Your task to perform on an android device: open wifi settings Image 0: 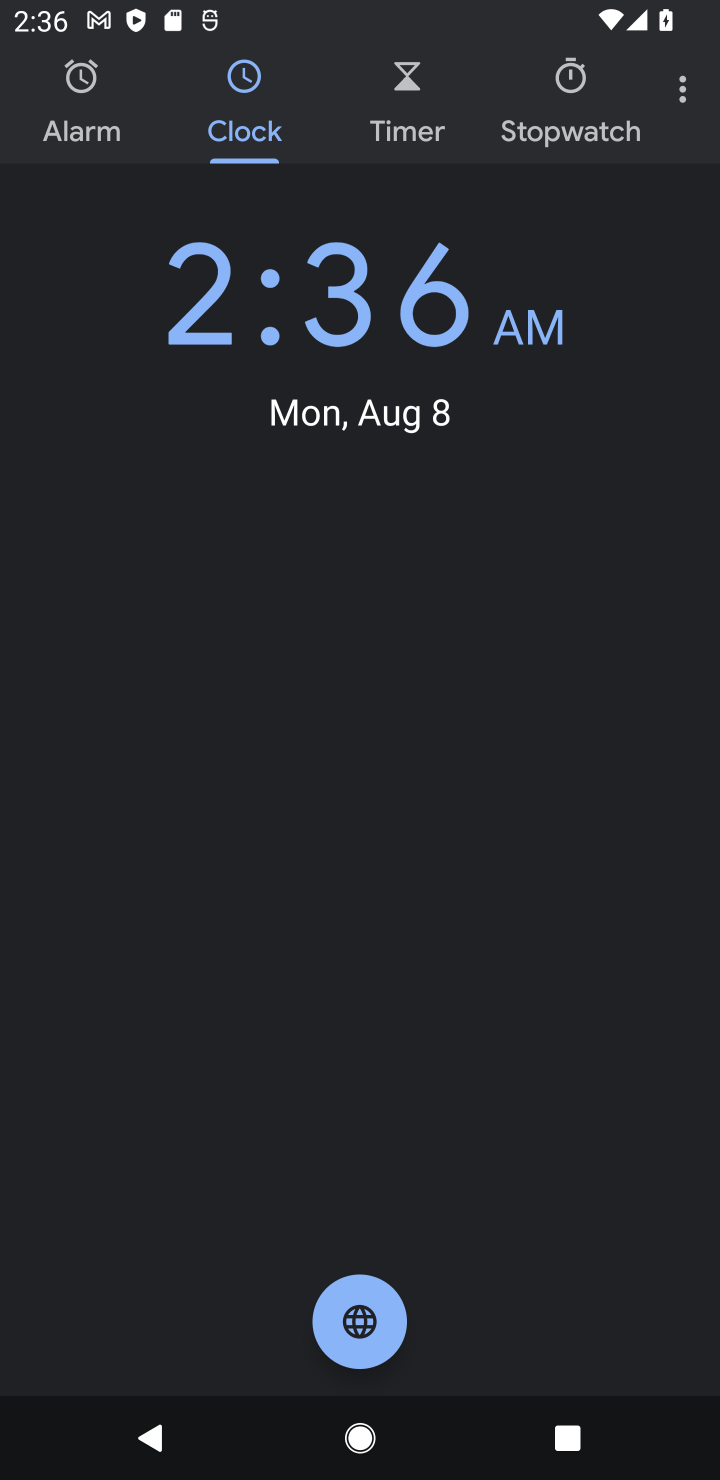
Step 0: press home button
Your task to perform on an android device: open wifi settings Image 1: 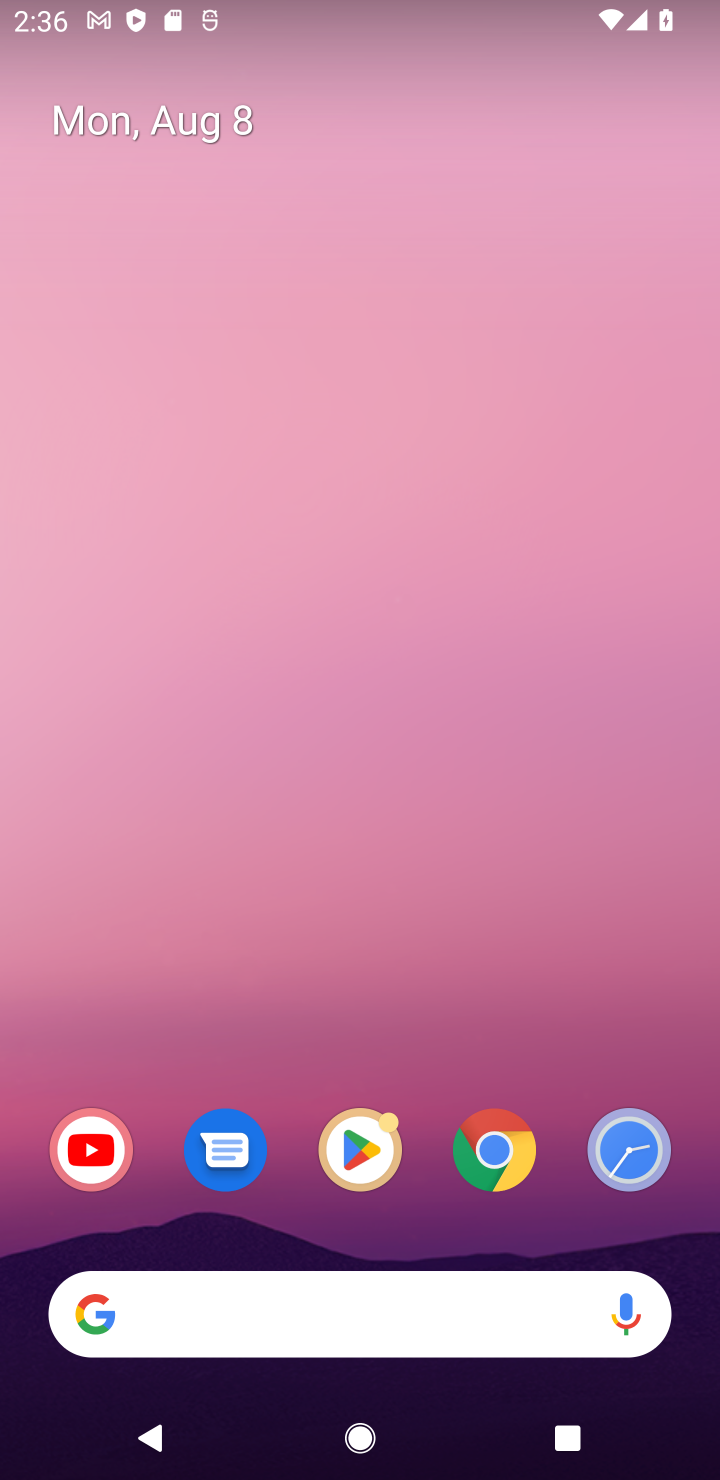
Step 1: drag from (440, 1255) to (273, 0)
Your task to perform on an android device: open wifi settings Image 2: 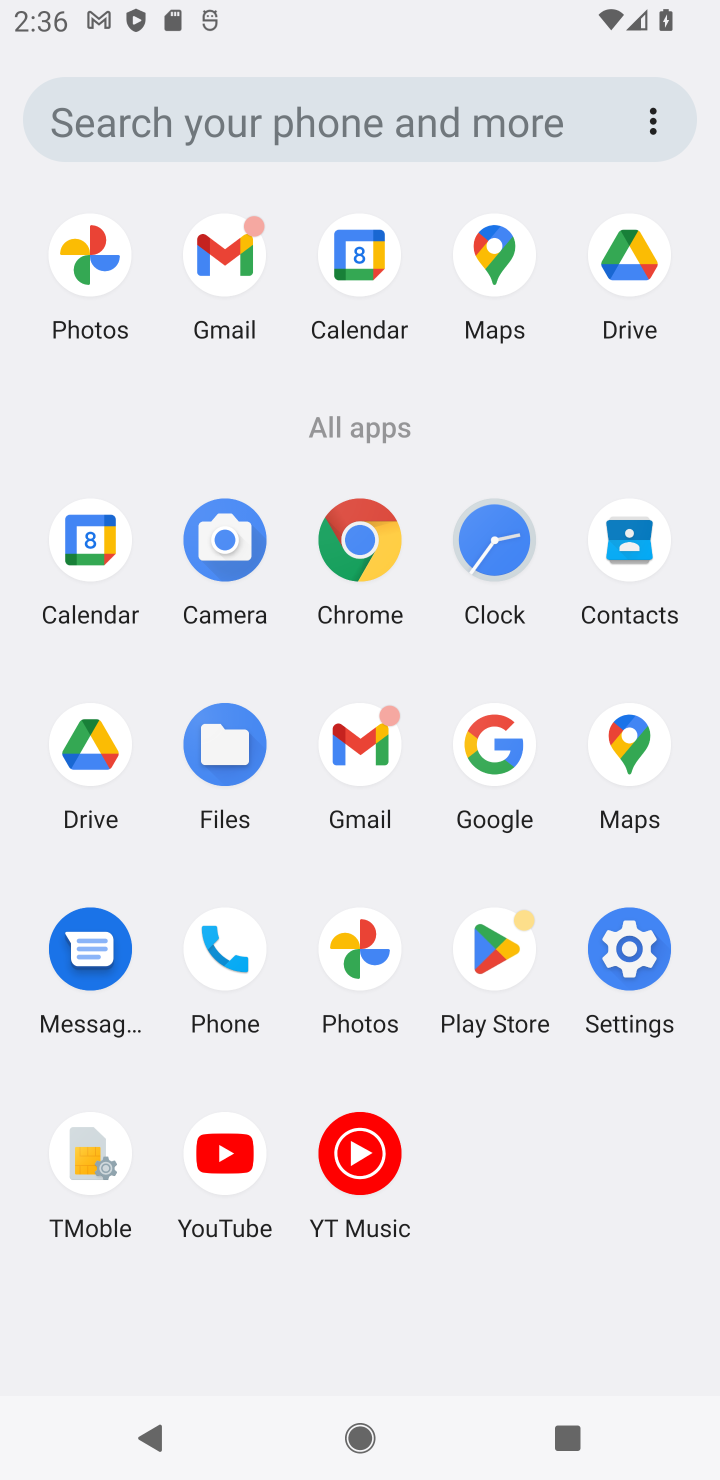
Step 2: click (633, 939)
Your task to perform on an android device: open wifi settings Image 3: 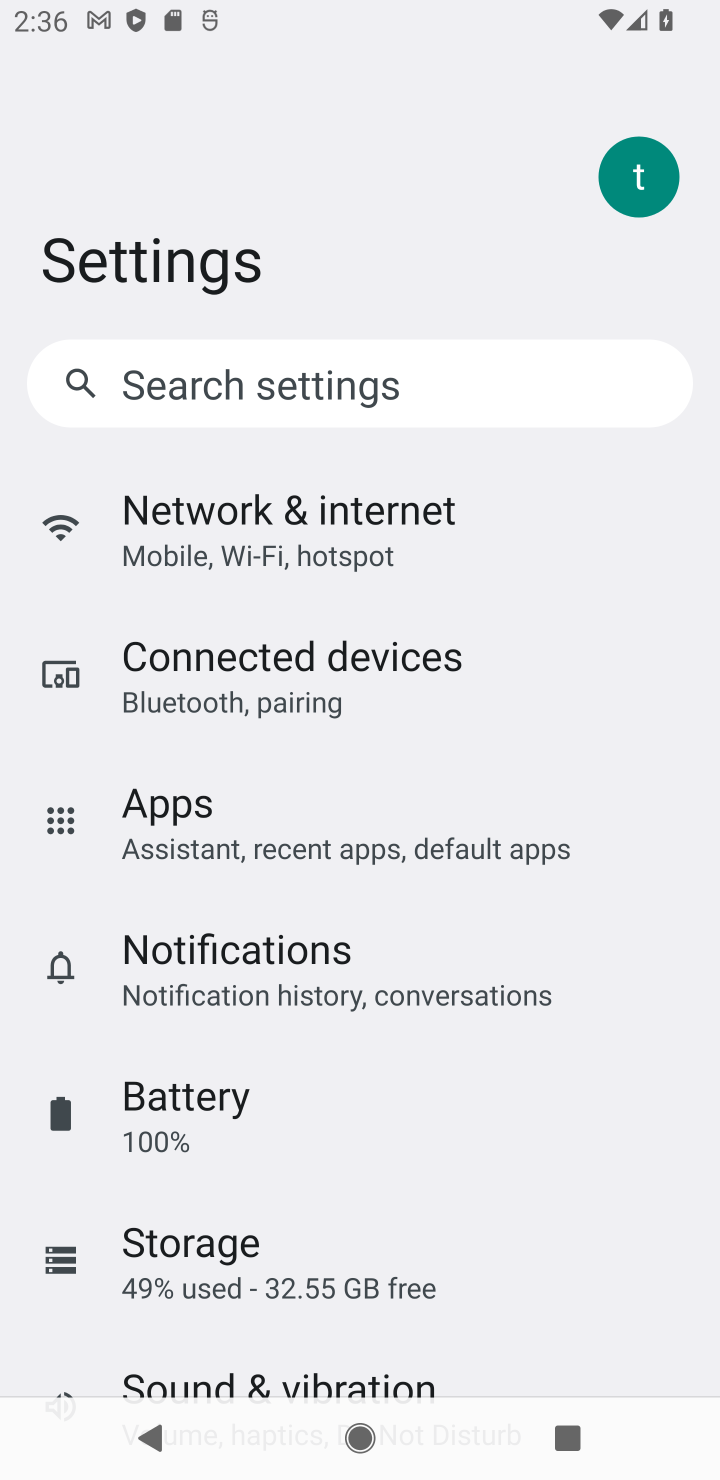
Step 3: click (282, 515)
Your task to perform on an android device: open wifi settings Image 4: 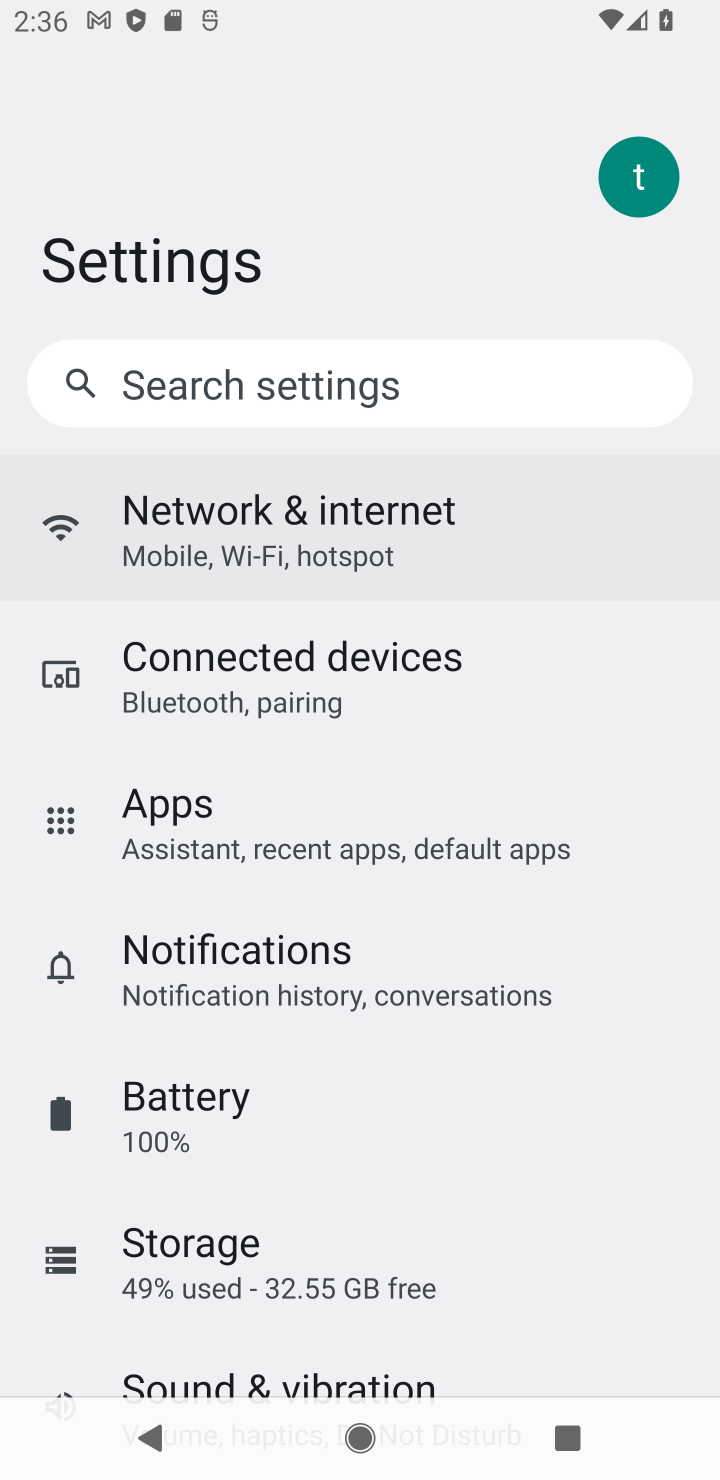
Step 4: task complete